Your task to perform on an android device: toggle airplane mode Image 0: 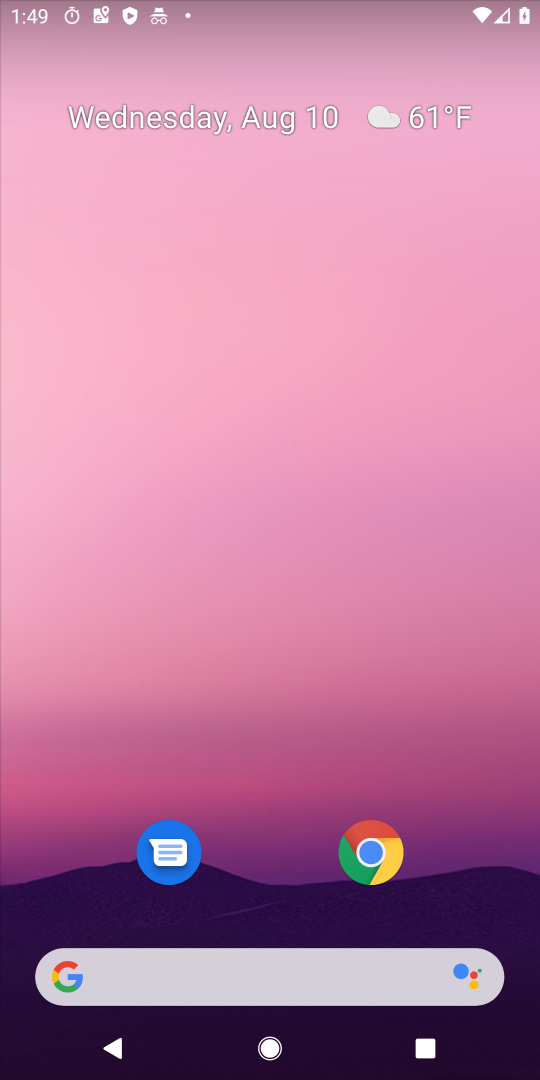
Step 0: drag from (261, 837) to (322, 187)
Your task to perform on an android device: toggle airplane mode Image 1: 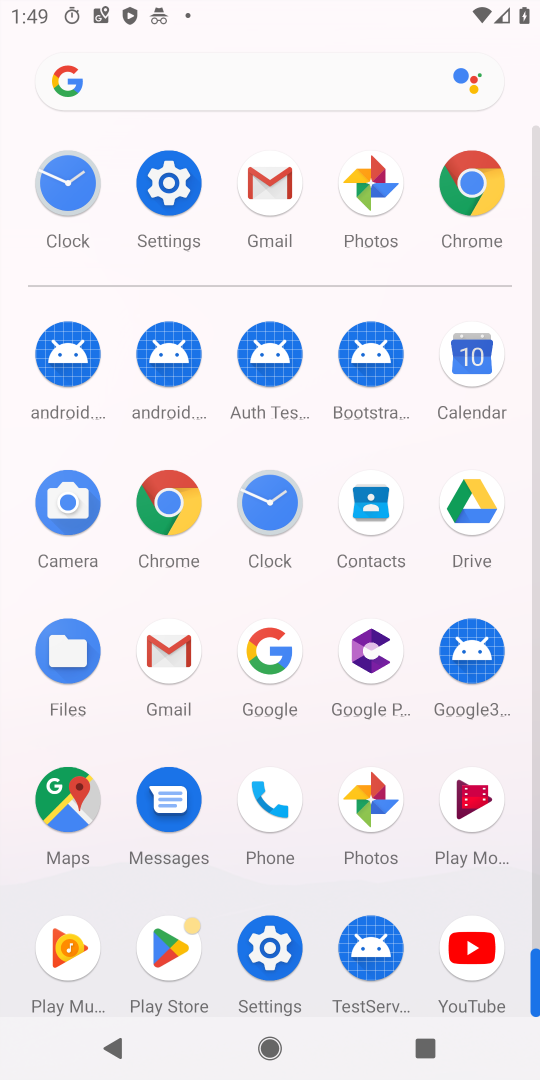
Step 1: click (278, 956)
Your task to perform on an android device: toggle airplane mode Image 2: 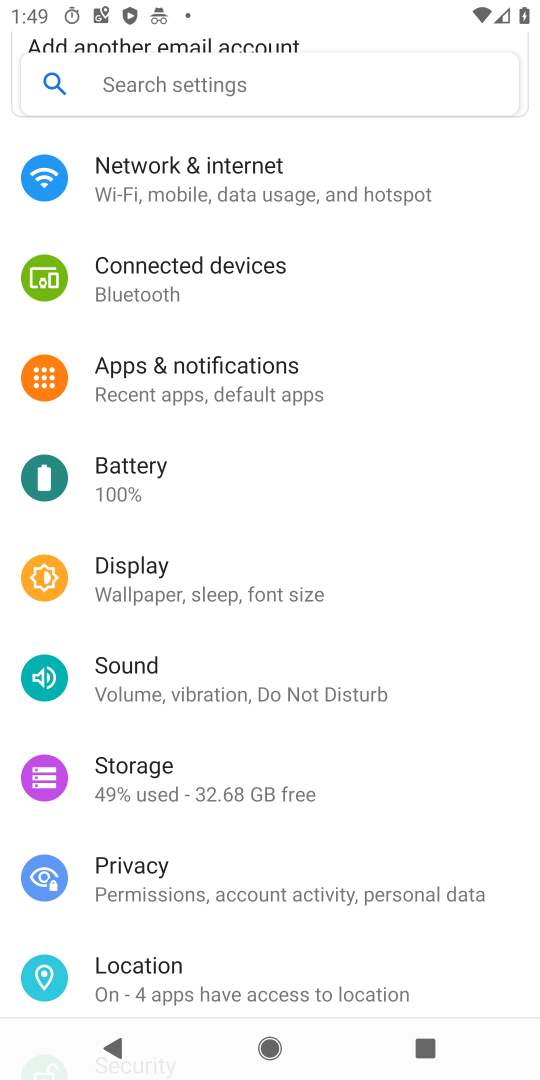
Step 2: click (248, 188)
Your task to perform on an android device: toggle airplane mode Image 3: 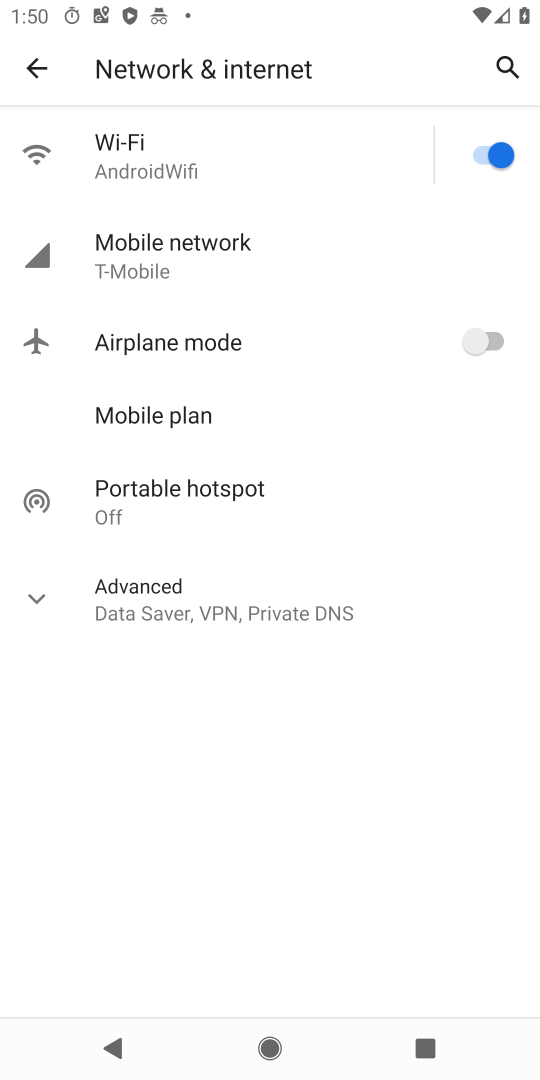
Step 3: click (440, 340)
Your task to perform on an android device: toggle airplane mode Image 4: 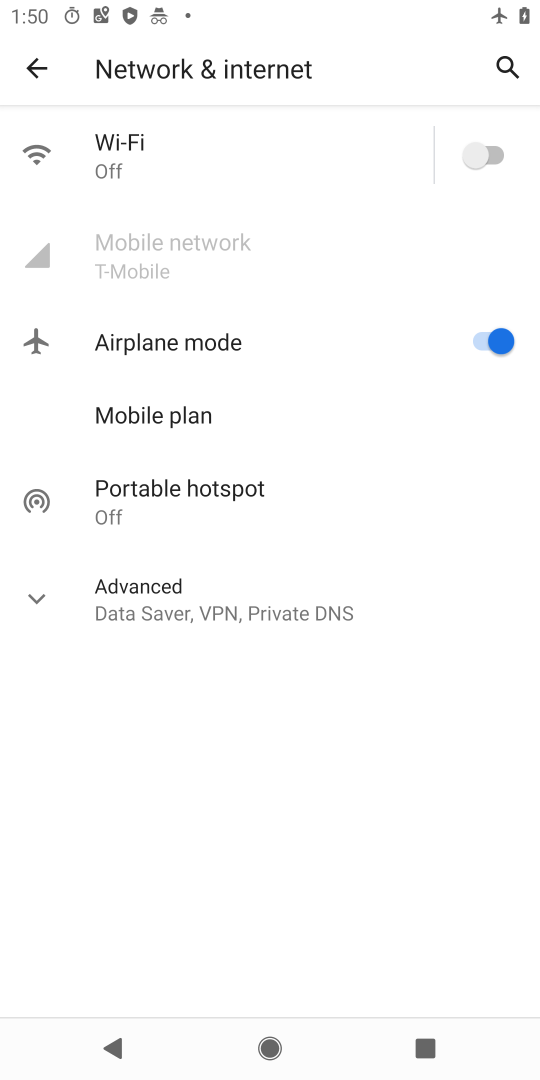
Step 4: task complete